Your task to perform on an android device: turn vacation reply on in the gmail app Image 0: 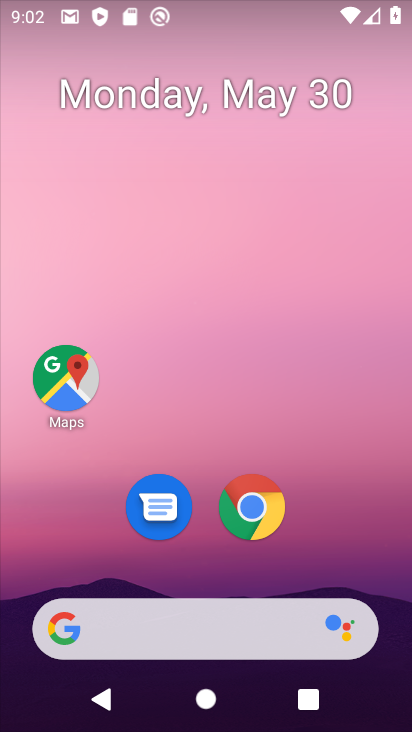
Step 0: drag from (243, 553) to (305, 12)
Your task to perform on an android device: turn vacation reply on in the gmail app Image 1: 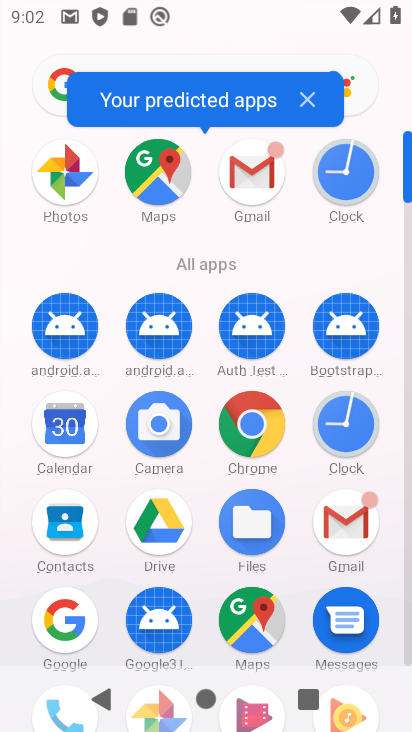
Step 1: click (350, 527)
Your task to perform on an android device: turn vacation reply on in the gmail app Image 2: 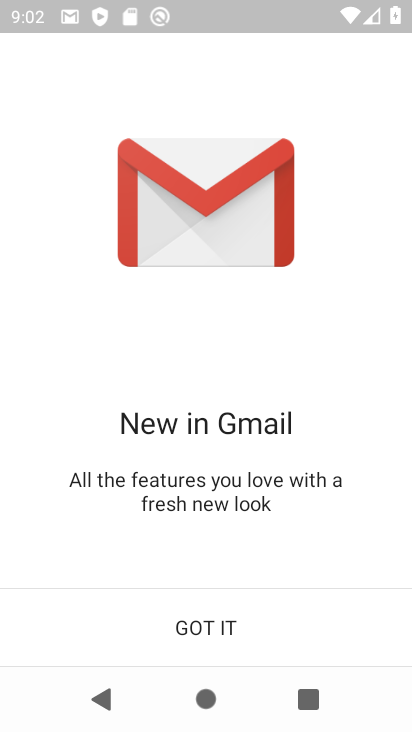
Step 2: click (221, 637)
Your task to perform on an android device: turn vacation reply on in the gmail app Image 3: 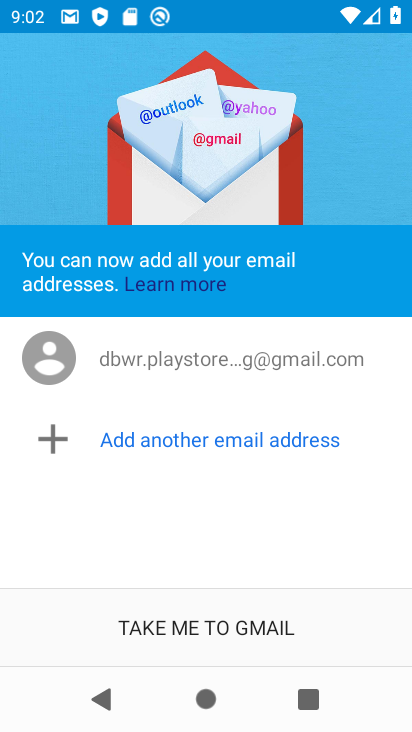
Step 3: click (223, 631)
Your task to perform on an android device: turn vacation reply on in the gmail app Image 4: 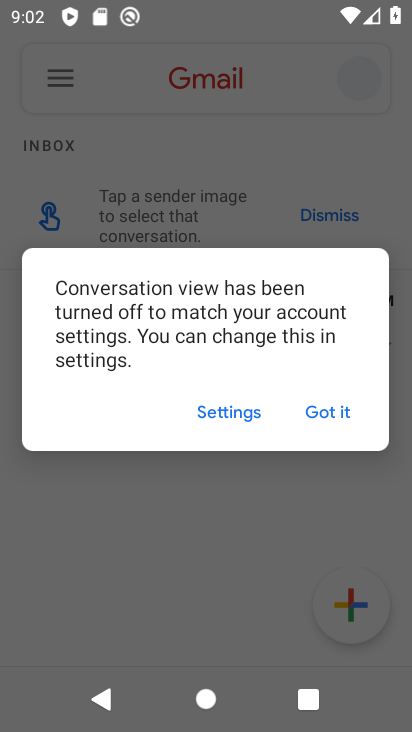
Step 4: click (335, 425)
Your task to perform on an android device: turn vacation reply on in the gmail app Image 5: 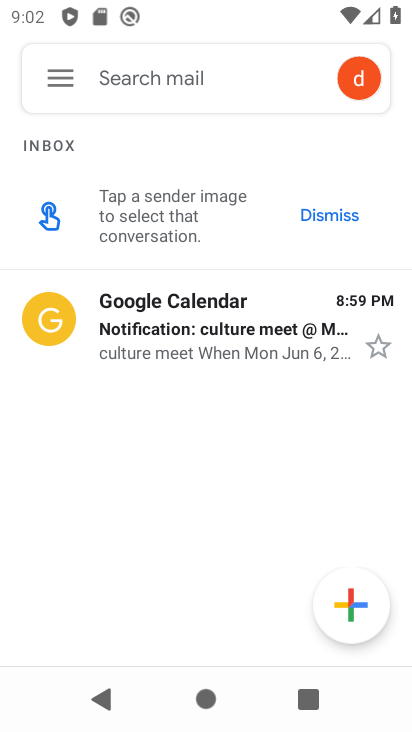
Step 5: click (53, 82)
Your task to perform on an android device: turn vacation reply on in the gmail app Image 6: 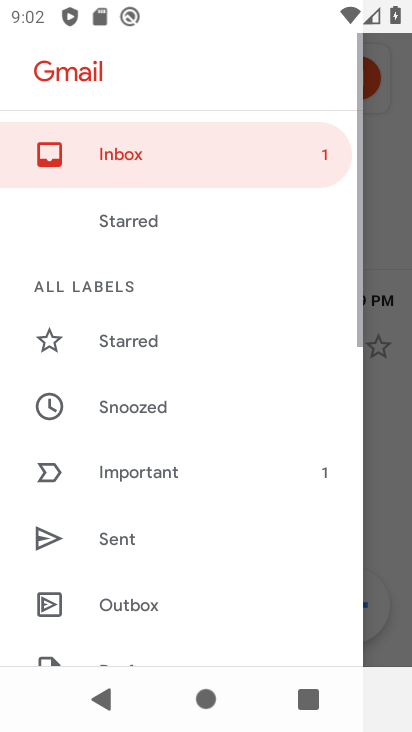
Step 6: drag from (145, 625) to (172, 201)
Your task to perform on an android device: turn vacation reply on in the gmail app Image 7: 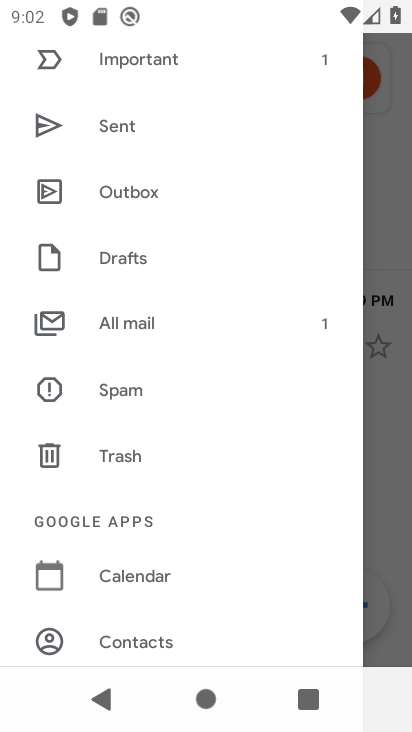
Step 7: drag from (123, 645) to (157, 305)
Your task to perform on an android device: turn vacation reply on in the gmail app Image 8: 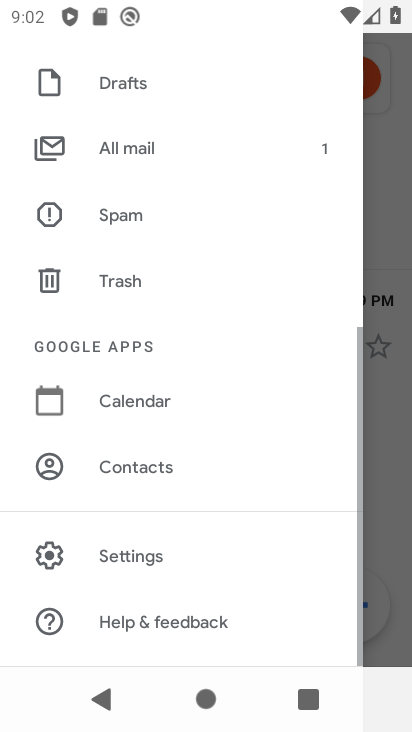
Step 8: click (114, 553)
Your task to perform on an android device: turn vacation reply on in the gmail app Image 9: 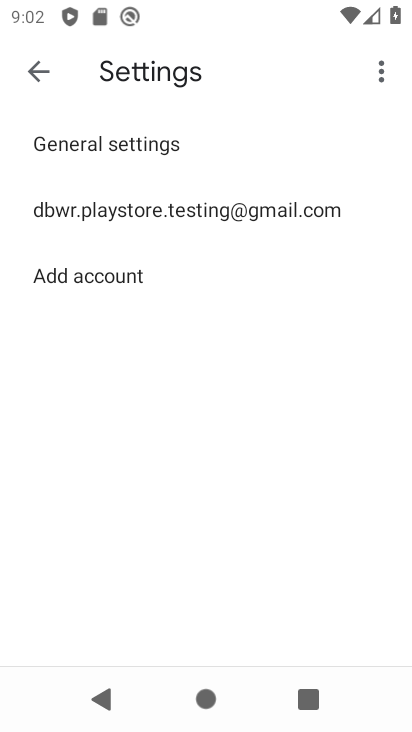
Step 9: click (152, 207)
Your task to perform on an android device: turn vacation reply on in the gmail app Image 10: 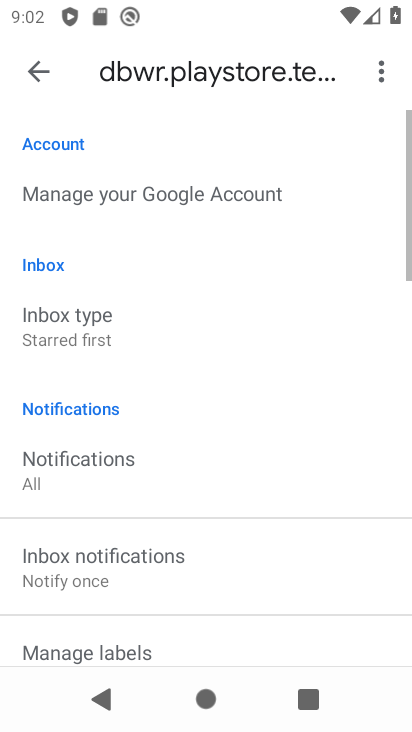
Step 10: drag from (166, 607) to (196, 92)
Your task to perform on an android device: turn vacation reply on in the gmail app Image 11: 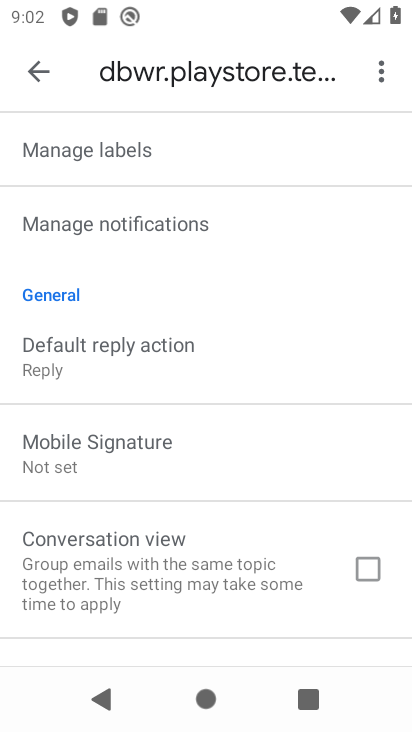
Step 11: drag from (166, 588) to (166, 232)
Your task to perform on an android device: turn vacation reply on in the gmail app Image 12: 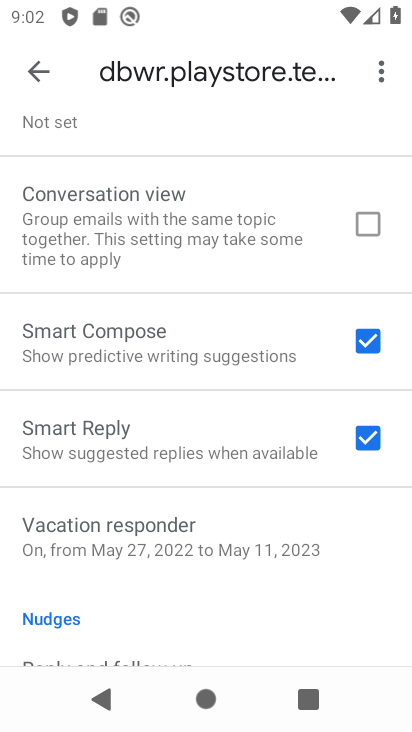
Step 12: click (140, 536)
Your task to perform on an android device: turn vacation reply on in the gmail app Image 13: 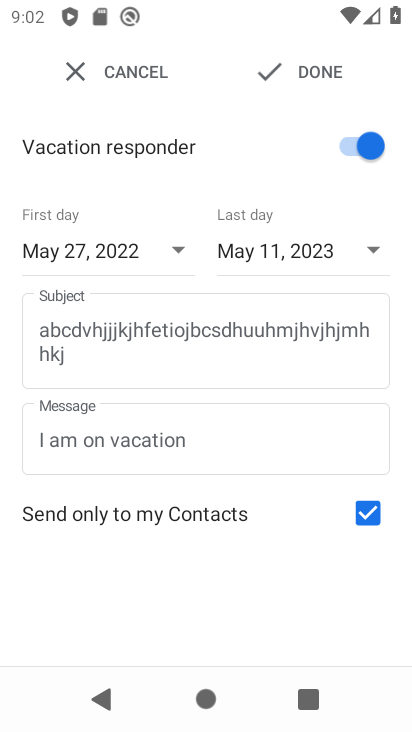
Step 13: click (320, 64)
Your task to perform on an android device: turn vacation reply on in the gmail app Image 14: 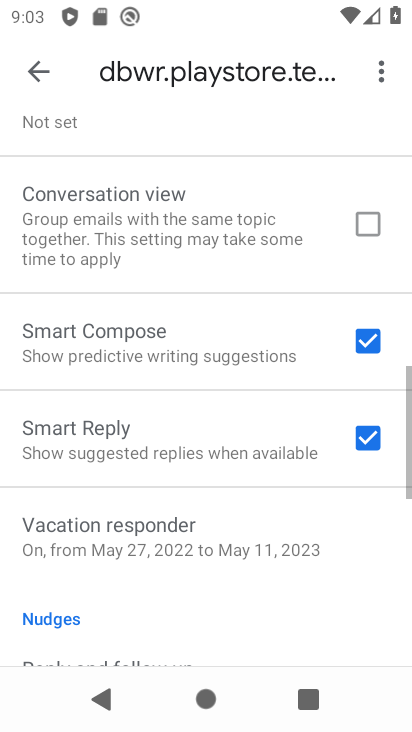
Step 14: task complete